Your task to perform on an android device: What is the news today? Image 0: 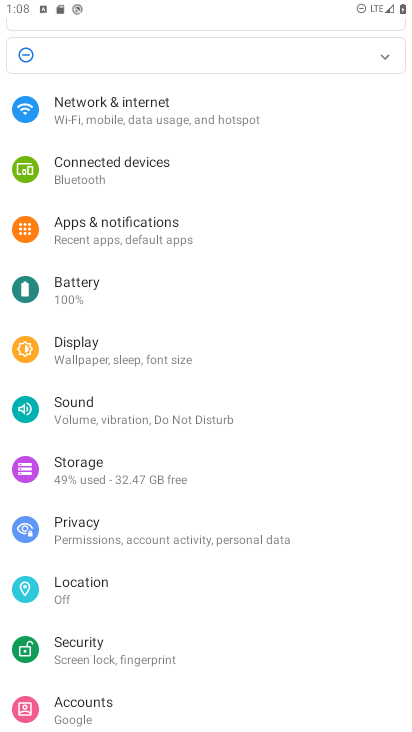
Step 0: press home button
Your task to perform on an android device: What is the news today? Image 1: 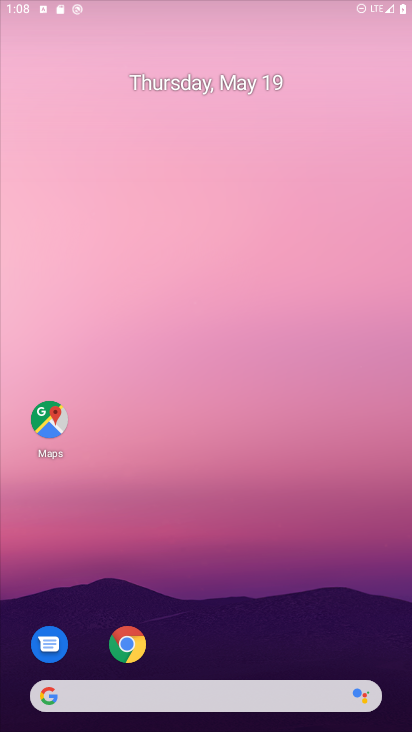
Step 1: drag from (333, 654) to (229, 83)
Your task to perform on an android device: What is the news today? Image 2: 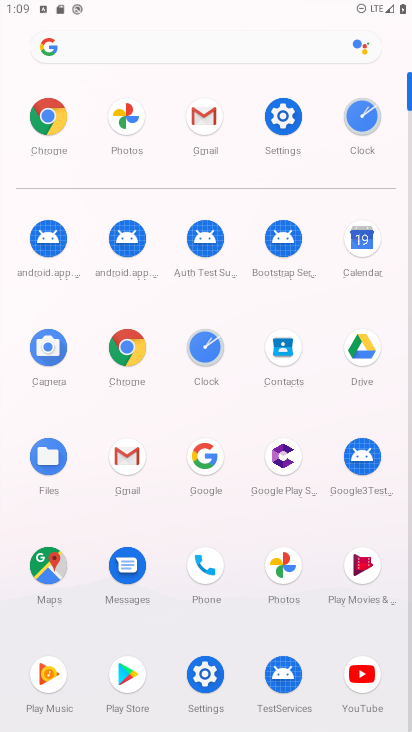
Step 2: click (201, 461)
Your task to perform on an android device: What is the news today? Image 3: 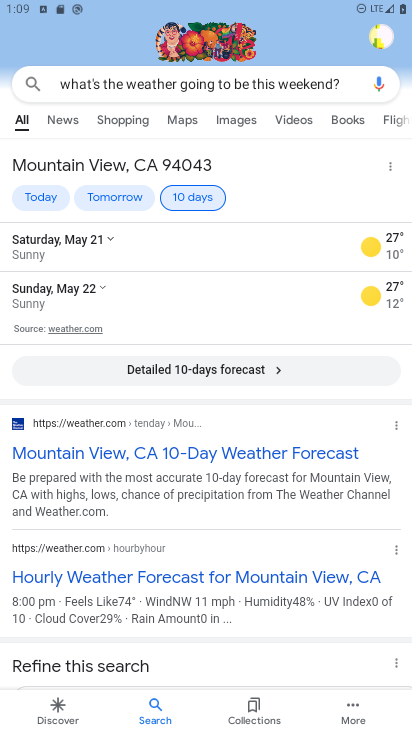
Step 3: press back button
Your task to perform on an android device: What is the news today? Image 4: 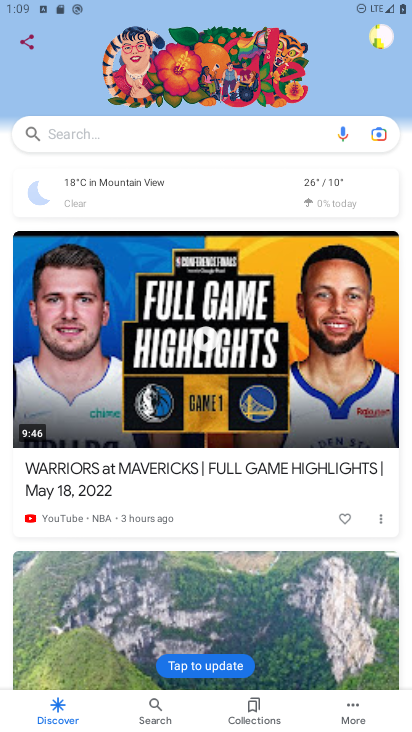
Step 4: click (113, 140)
Your task to perform on an android device: What is the news today? Image 5: 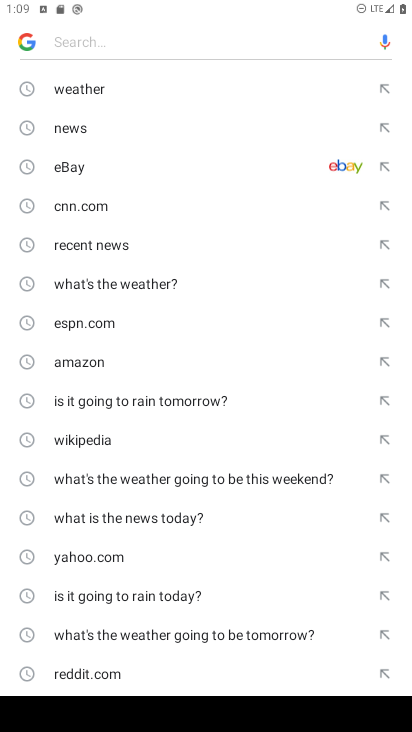
Step 5: click (171, 527)
Your task to perform on an android device: What is the news today? Image 6: 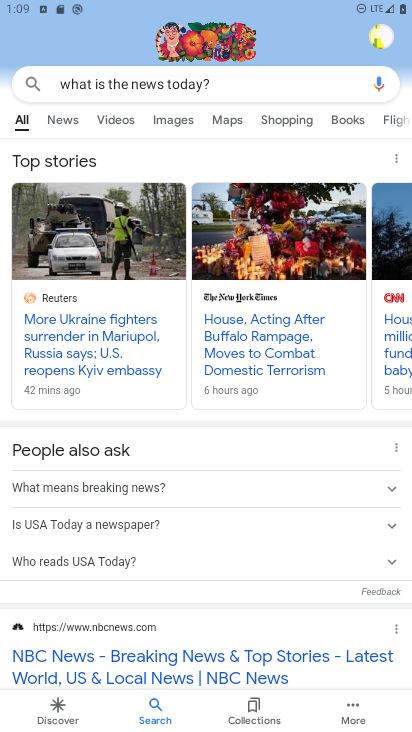
Step 6: task complete